Your task to perform on an android device: turn on wifi Image 0: 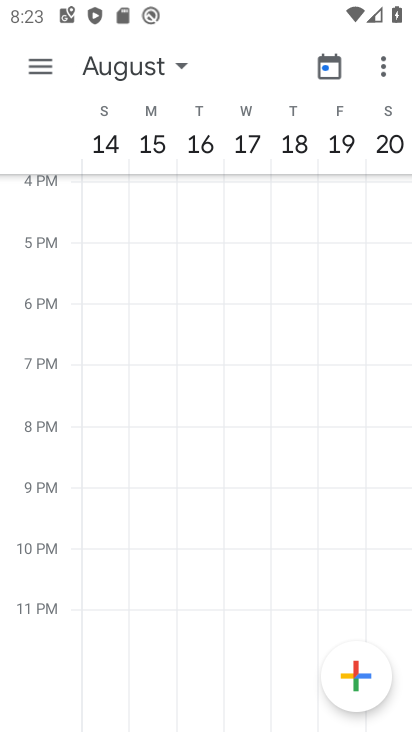
Step 0: press home button
Your task to perform on an android device: turn on wifi Image 1: 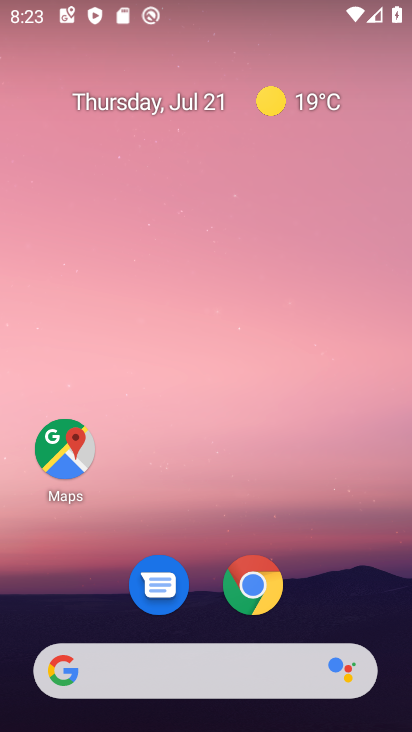
Step 1: drag from (316, 541) to (307, 5)
Your task to perform on an android device: turn on wifi Image 2: 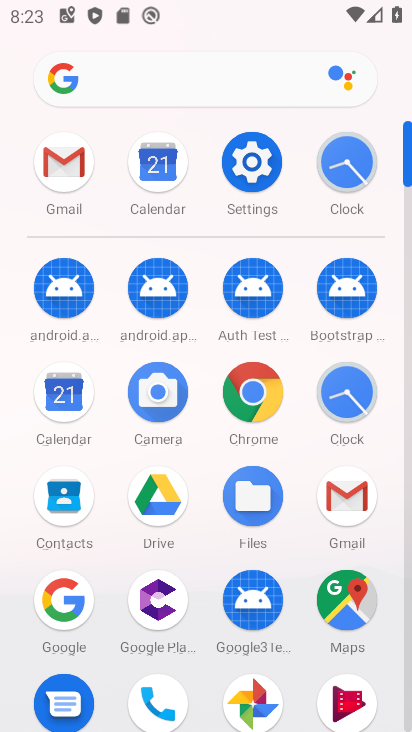
Step 2: click (249, 161)
Your task to perform on an android device: turn on wifi Image 3: 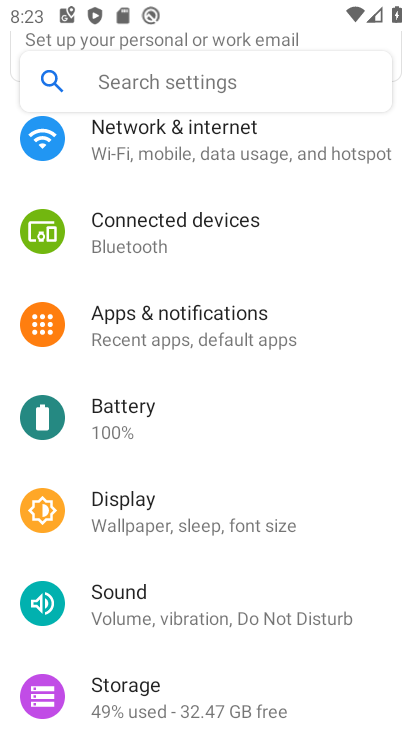
Step 3: click (248, 153)
Your task to perform on an android device: turn on wifi Image 4: 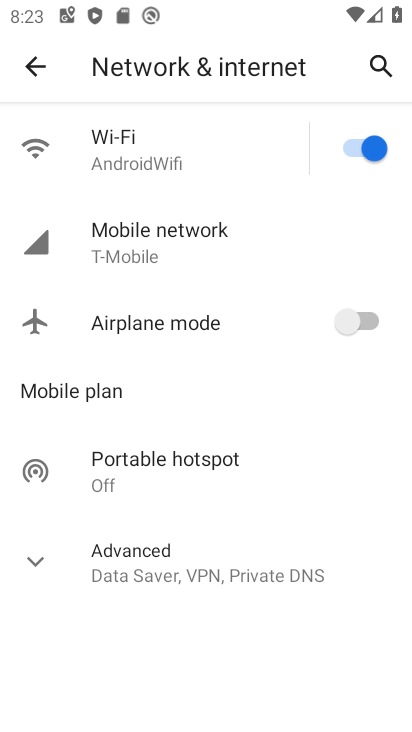
Step 4: task complete